Your task to perform on an android device: Find coffee shops on Maps Image 0: 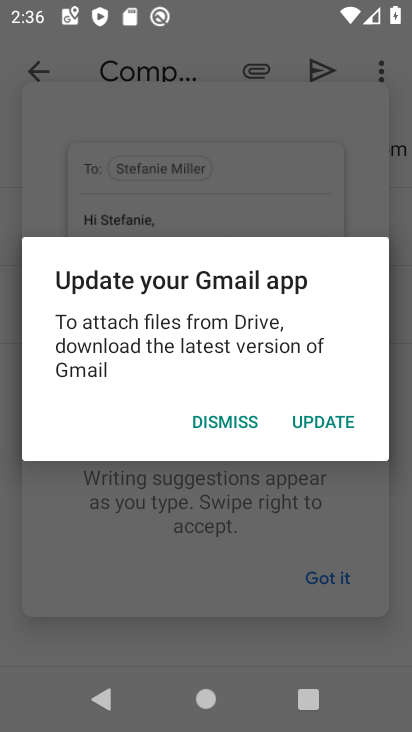
Step 0: press home button
Your task to perform on an android device: Find coffee shops on Maps Image 1: 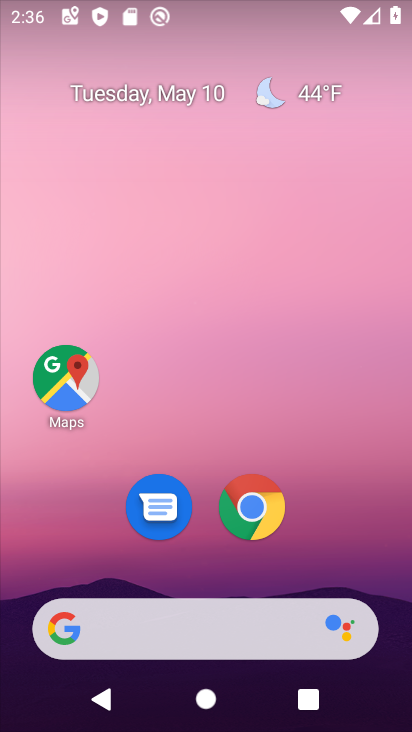
Step 1: drag from (222, 723) to (186, 198)
Your task to perform on an android device: Find coffee shops on Maps Image 2: 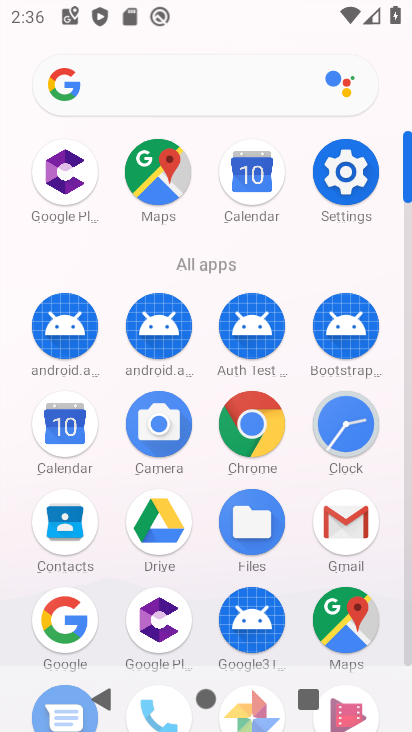
Step 2: click (353, 614)
Your task to perform on an android device: Find coffee shops on Maps Image 3: 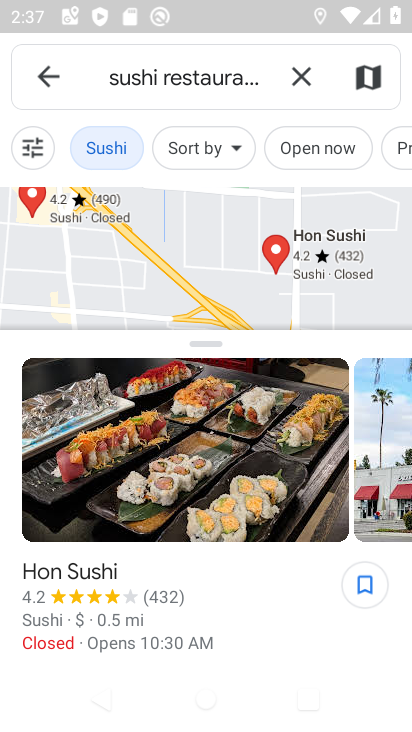
Step 3: click (294, 76)
Your task to perform on an android device: Find coffee shops on Maps Image 4: 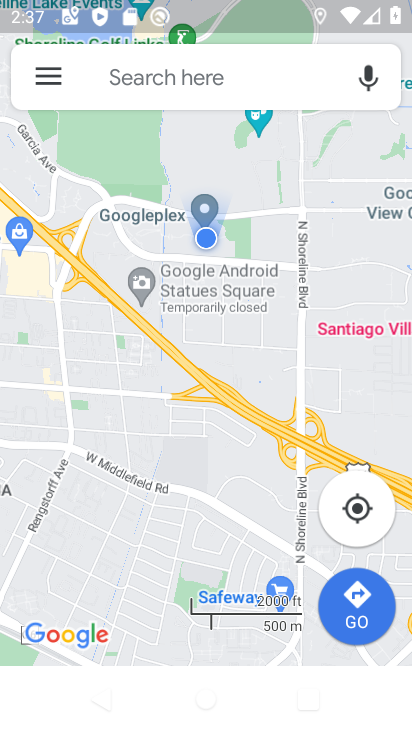
Step 4: click (240, 74)
Your task to perform on an android device: Find coffee shops on Maps Image 5: 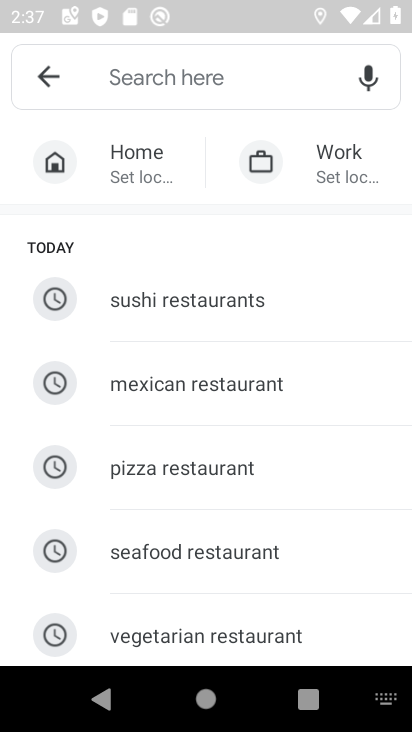
Step 5: type "Coffee shops"
Your task to perform on an android device: Find coffee shops on Maps Image 6: 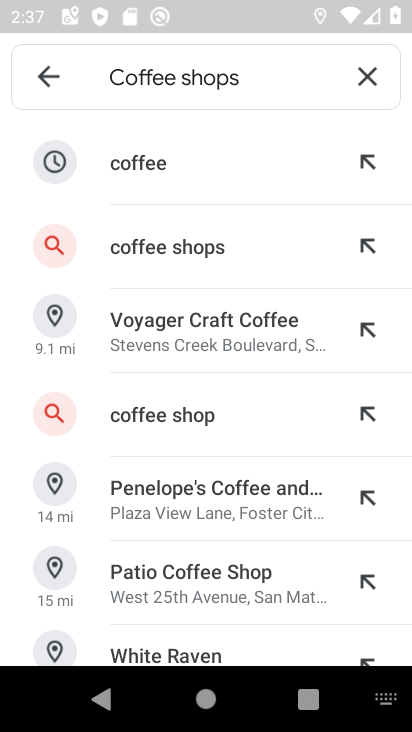
Step 6: click (155, 245)
Your task to perform on an android device: Find coffee shops on Maps Image 7: 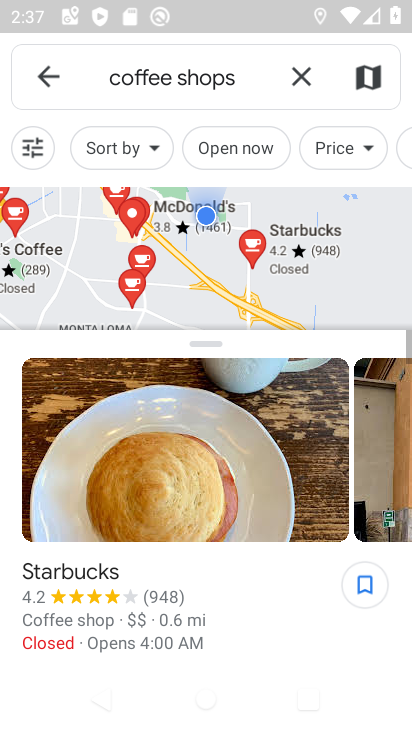
Step 7: task complete